Your task to perform on an android device: make emails show in primary in the gmail app Image 0: 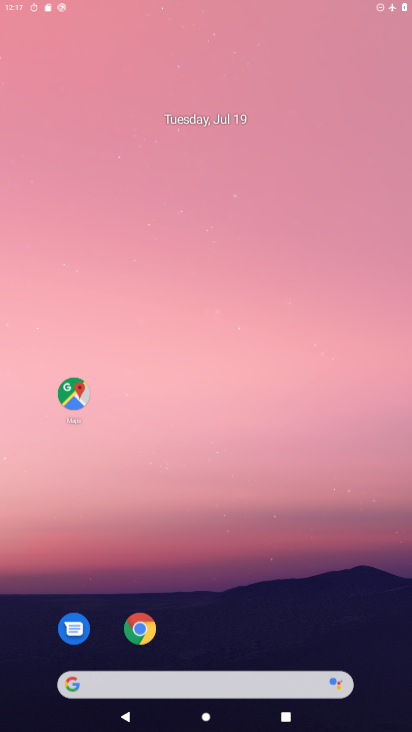
Step 0: drag from (332, 603) to (272, 75)
Your task to perform on an android device: make emails show in primary in the gmail app Image 1: 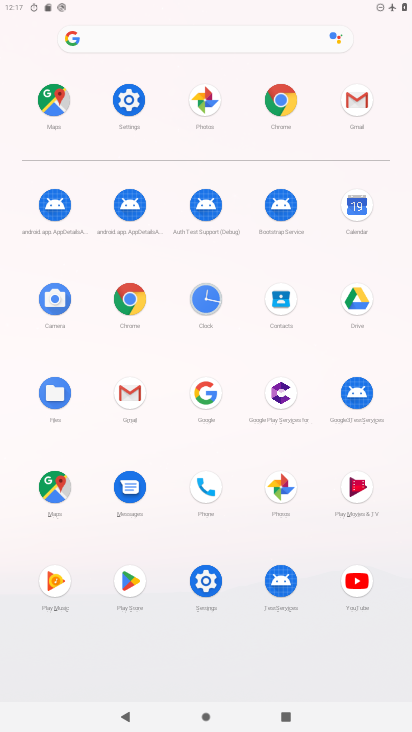
Step 1: click (356, 94)
Your task to perform on an android device: make emails show in primary in the gmail app Image 2: 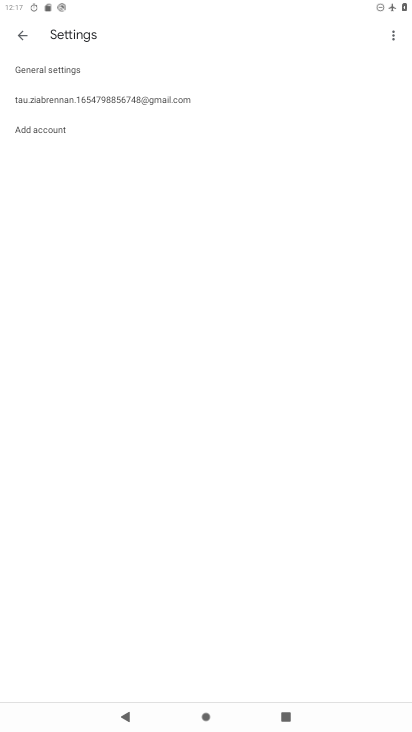
Step 2: click (23, 35)
Your task to perform on an android device: make emails show in primary in the gmail app Image 3: 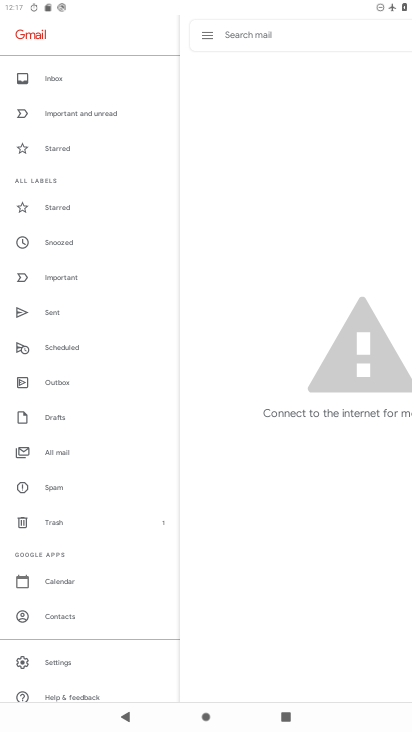
Step 3: click (58, 658)
Your task to perform on an android device: make emails show in primary in the gmail app Image 4: 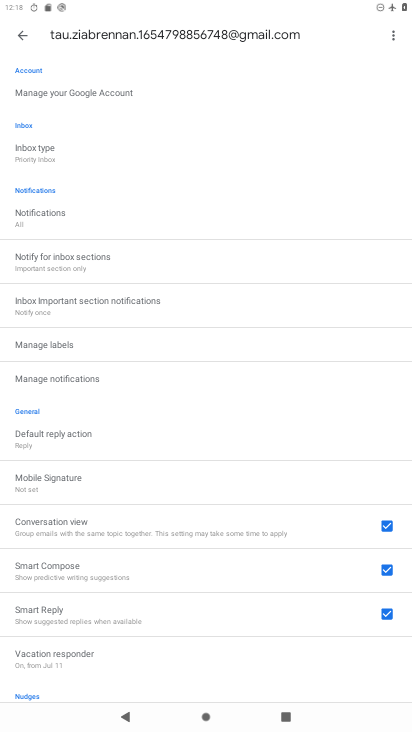
Step 4: click (45, 154)
Your task to perform on an android device: make emails show in primary in the gmail app Image 5: 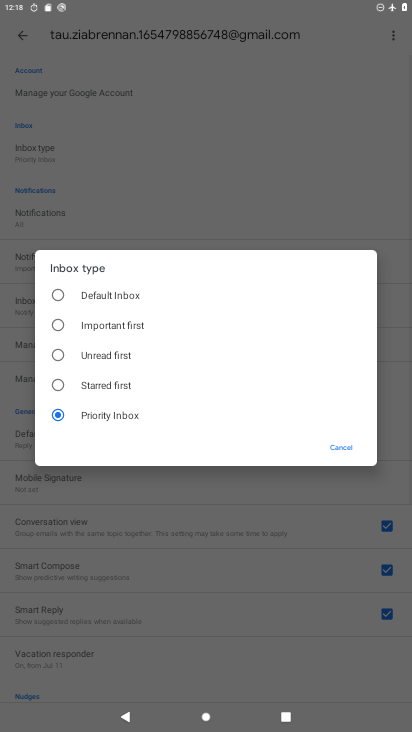
Step 5: click (114, 302)
Your task to perform on an android device: make emails show in primary in the gmail app Image 6: 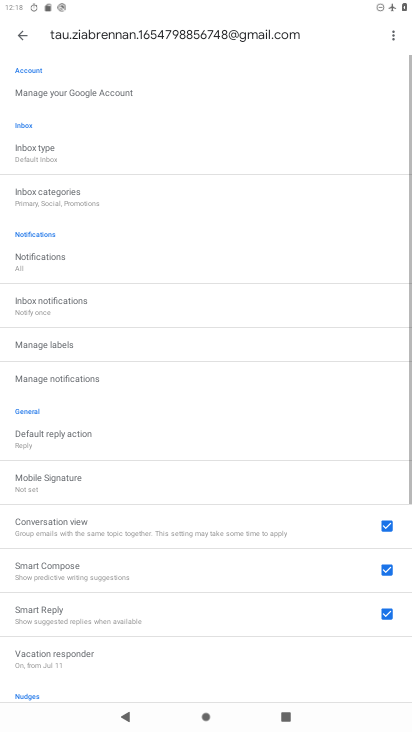
Step 6: click (58, 200)
Your task to perform on an android device: make emails show in primary in the gmail app Image 7: 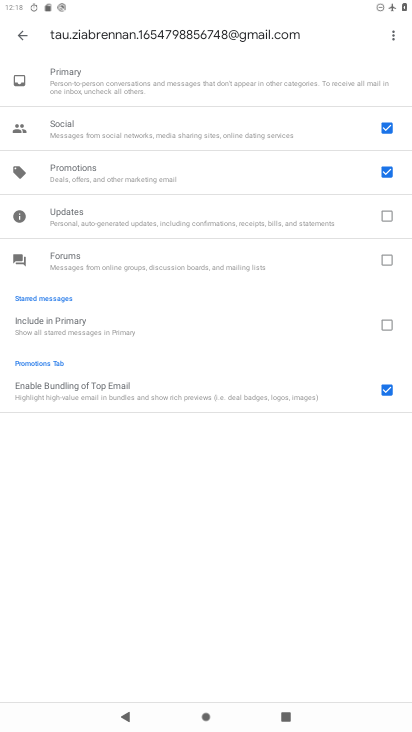
Step 7: task complete